Your task to perform on an android device: Go to display settings Image 0: 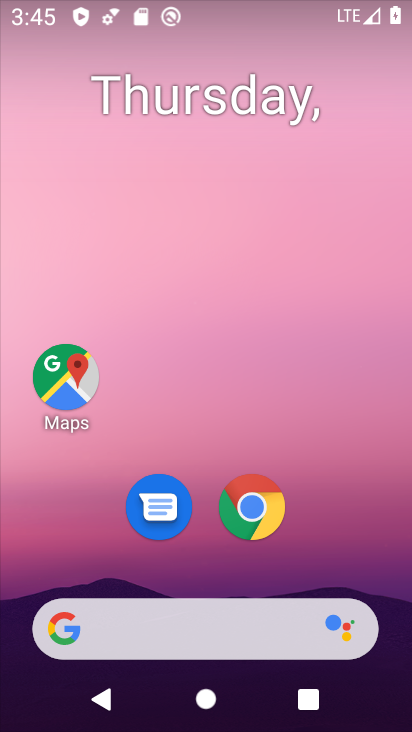
Step 0: press home button
Your task to perform on an android device: Go to display settings Image 1: 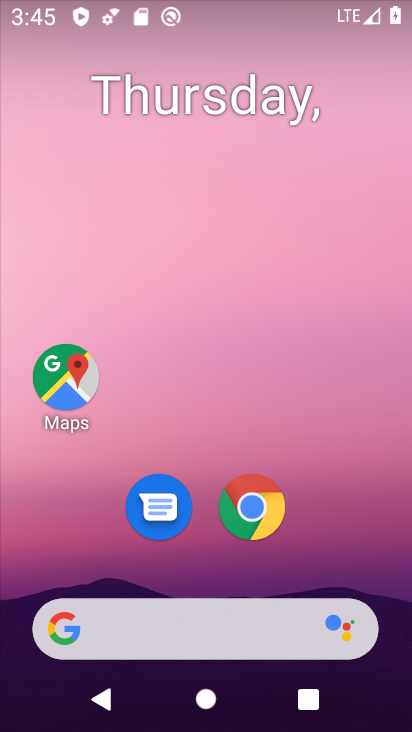
Step 1: drag from (364, 539) to (316, 61)
Your task to perform on an android device: Go to display settings Image 2: 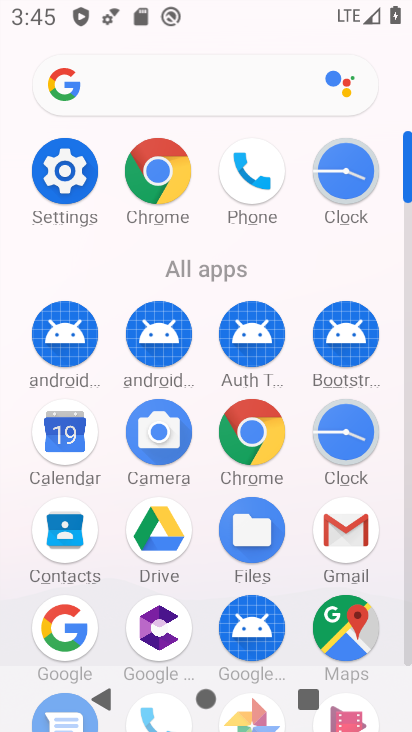
Step 2: click (66, 170)
Your task to perform on an android device: Go to display settings Image 3: 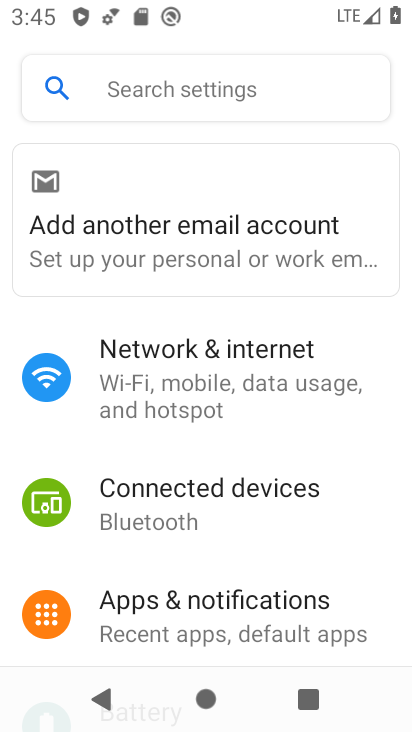
Step 3: drag from (168, 345) to (212, 154)
Your task to perform on an android device: Go to display settings Image 4: 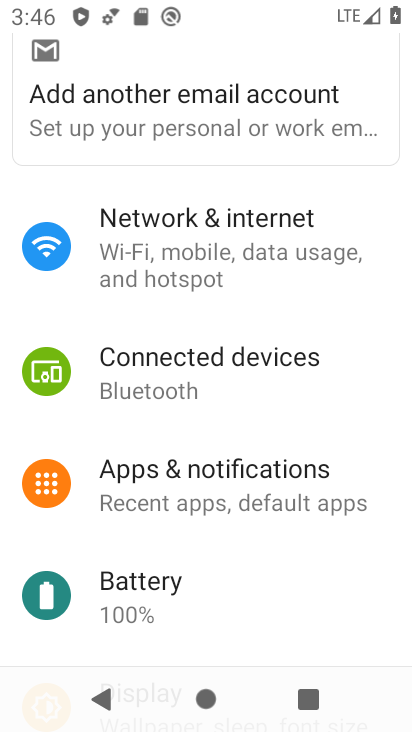
Step 4: drag from (196, 479) to (237, 107)
Your task to perform on an android device: Go to display settings Image 5: 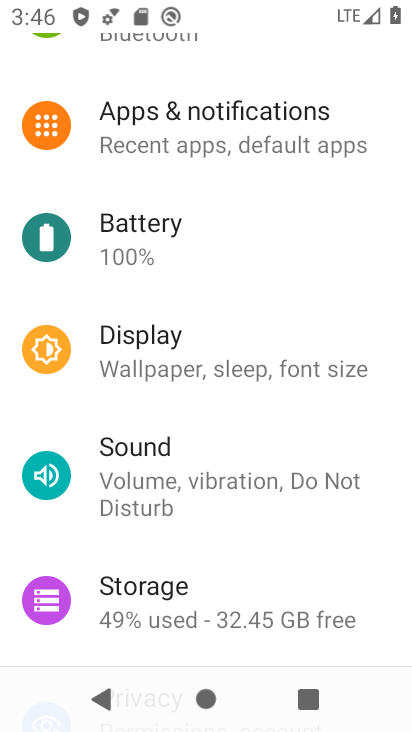
Step 5: click (215, 344)
Your task to perform on an android device: Go to display settings Image 6: 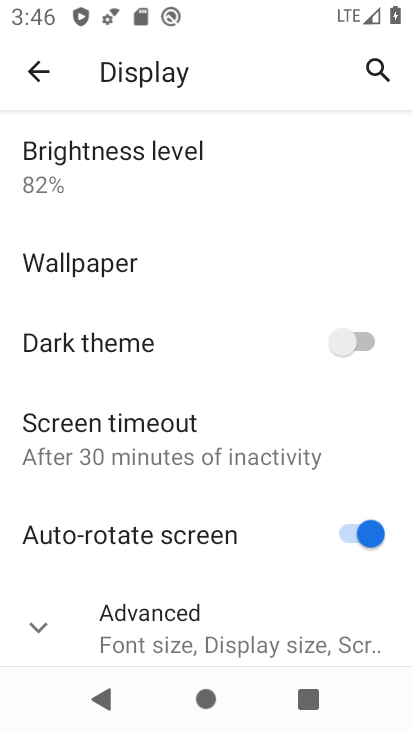
Step 6: task complete